Your task to perform on an android device: Clear the shopping cart on costco.com. Add "razer deathadder" to the cart on costco.com Image 0: 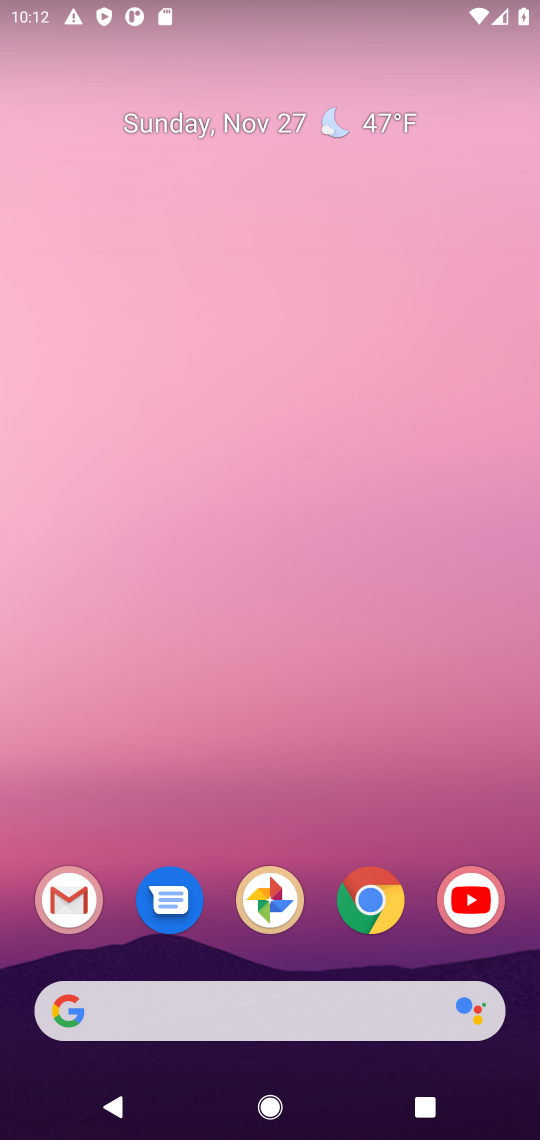
Step 0: click (366, 913)
Your task to perform on an android device: Clear the shopping cart on costco.com. Add "razer deathadder" to the cart on costco.com Image 1: 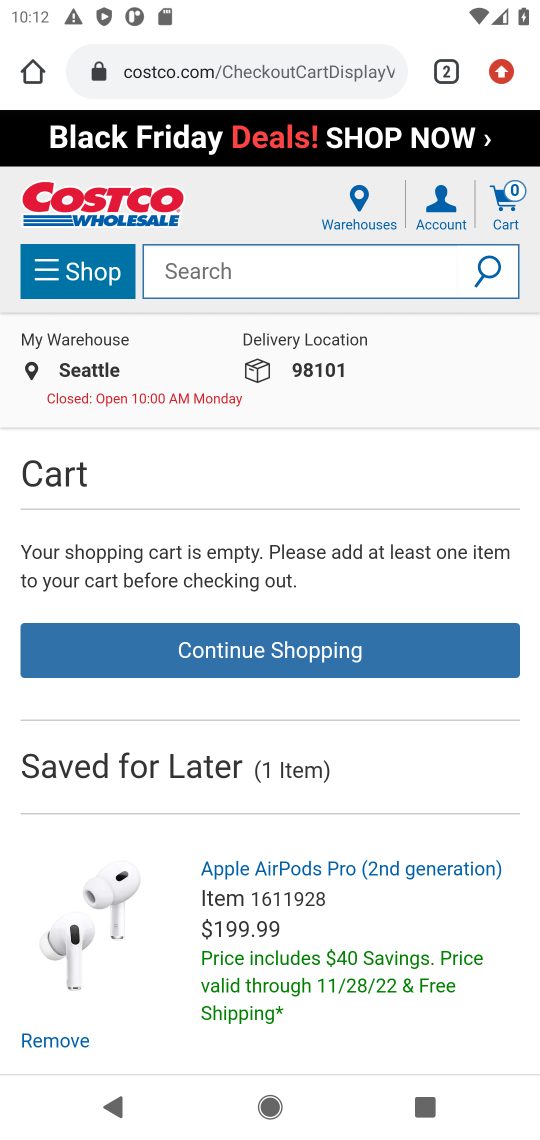
Step 1: click (201, 267)
Your task to perform on an android device: Clear the shopping cart on costco.com. Add "razer deathadder" to the cart on costco.com Image 2: 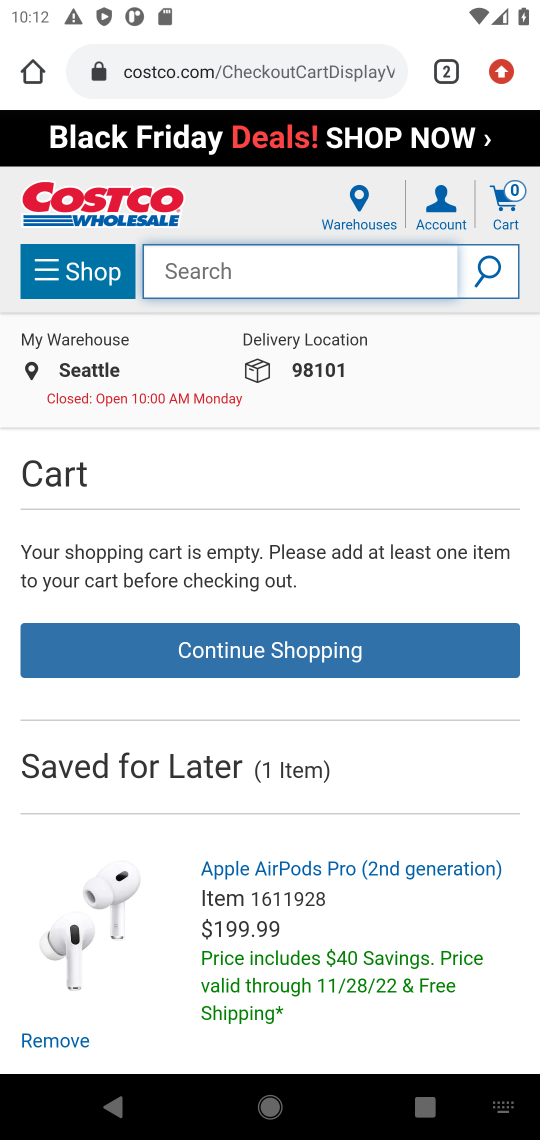
Step 2: type "razer deathadder"
Your task to perform on an android device: Clear the shopping cart on costco.com. Add "razer deathadder" to the cart on costco.com Image 3: 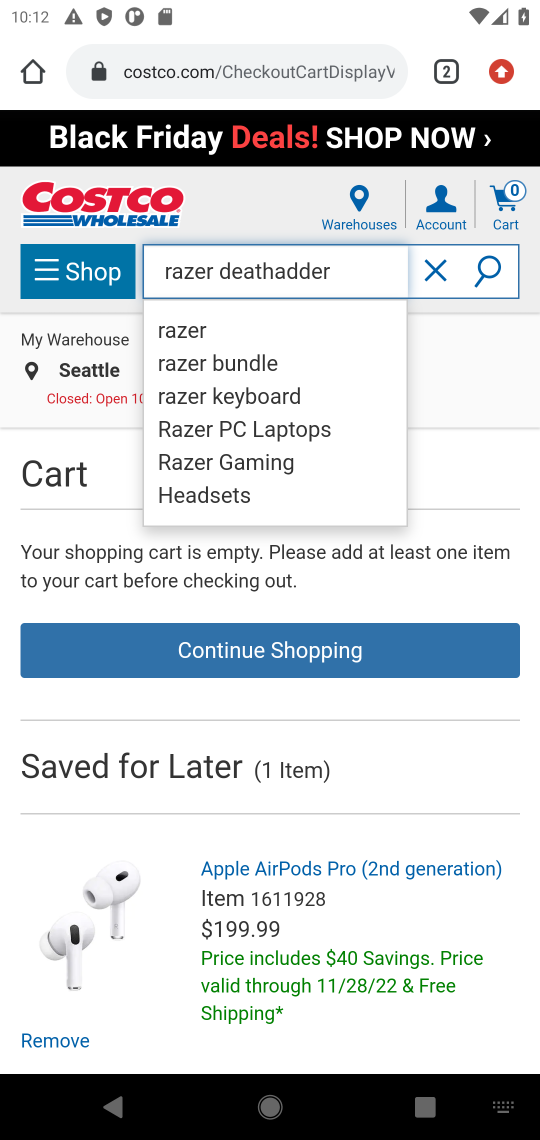
Step 3: click (497, 264)
Your task to perform on an android device: Clear the shopping cart on costco.com. Add "razer deathadder" to the cart on costco.com Image 4: 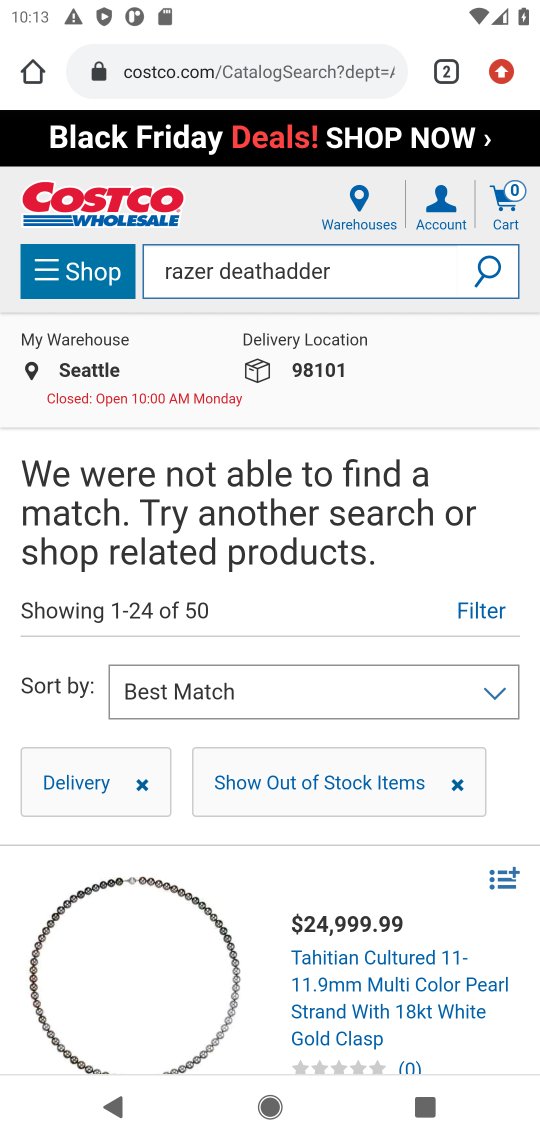
Step 4: task complete